Your task to perform on an android device: Open accessibility settings Image 0: 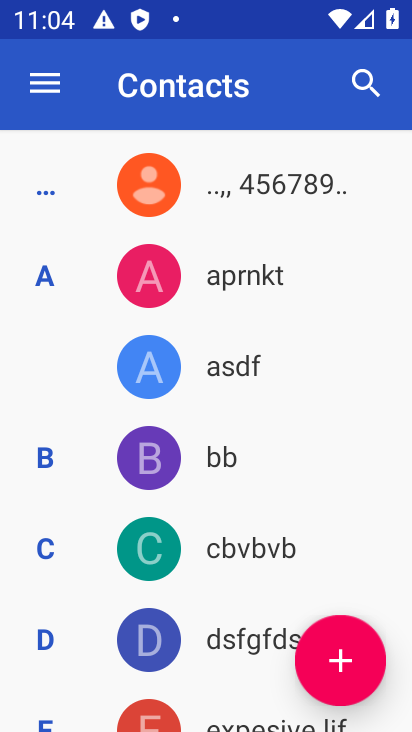
Step 0: task complete